Your task to perform on an android device: Empty the shopping cart on target.com. Search for "macbook" on target.com, select the first entry, and add it to the cart. Image 0: 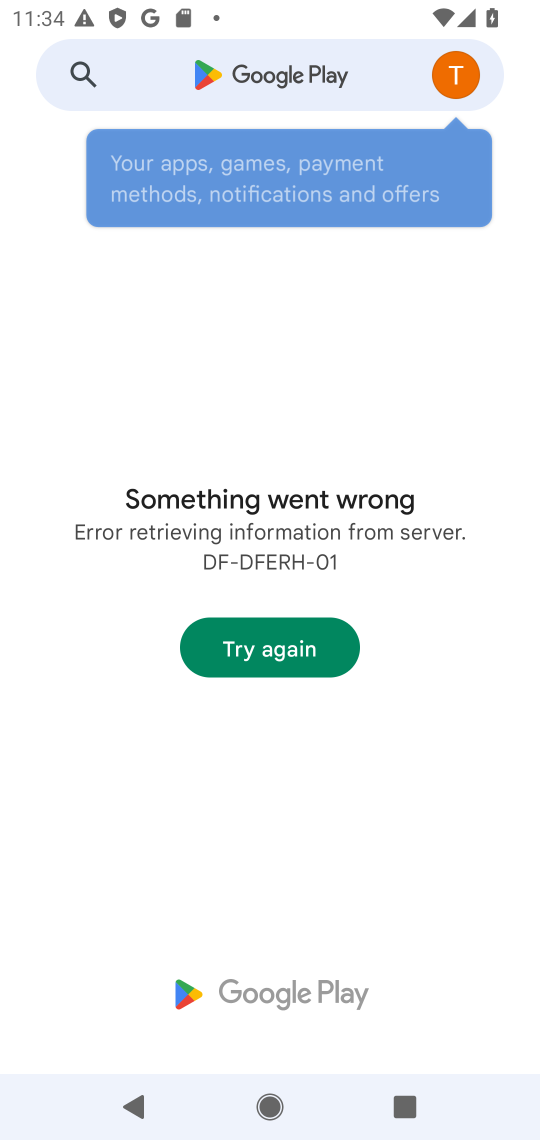
Step 0: press home button
Your task to perform on an android device: Empty the shopping cart on target.com. Search for "macbook" on target.com, select the first entry, and add it to the cart. Image 1: 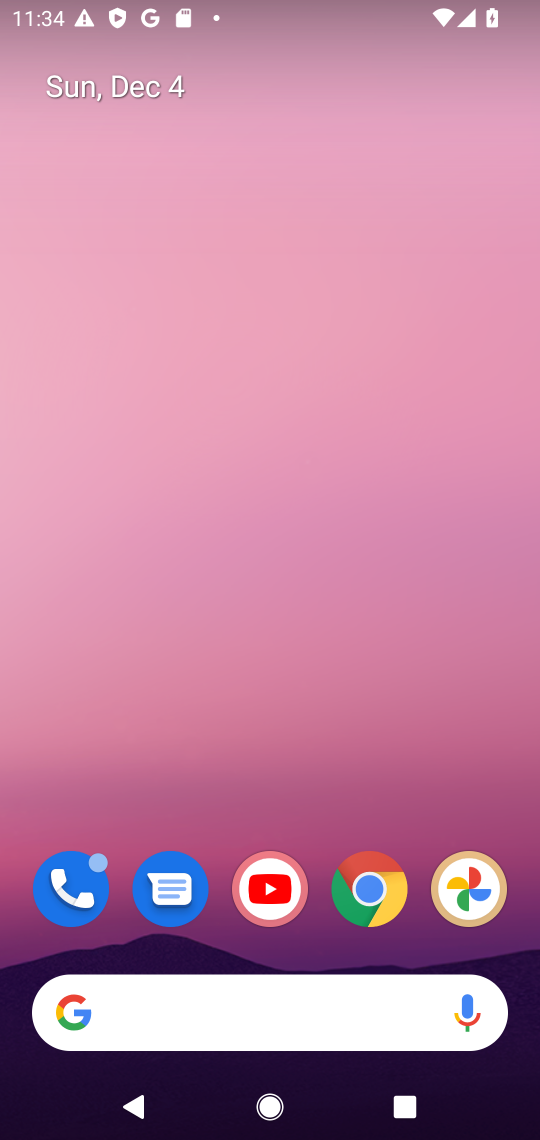
Step 1: click (388, 890)
Your task to perform on an android device: Empty the shopping cart on target.com. Search for "macbook" on target.com, select the first entry, and add it to the cart. Image 2: 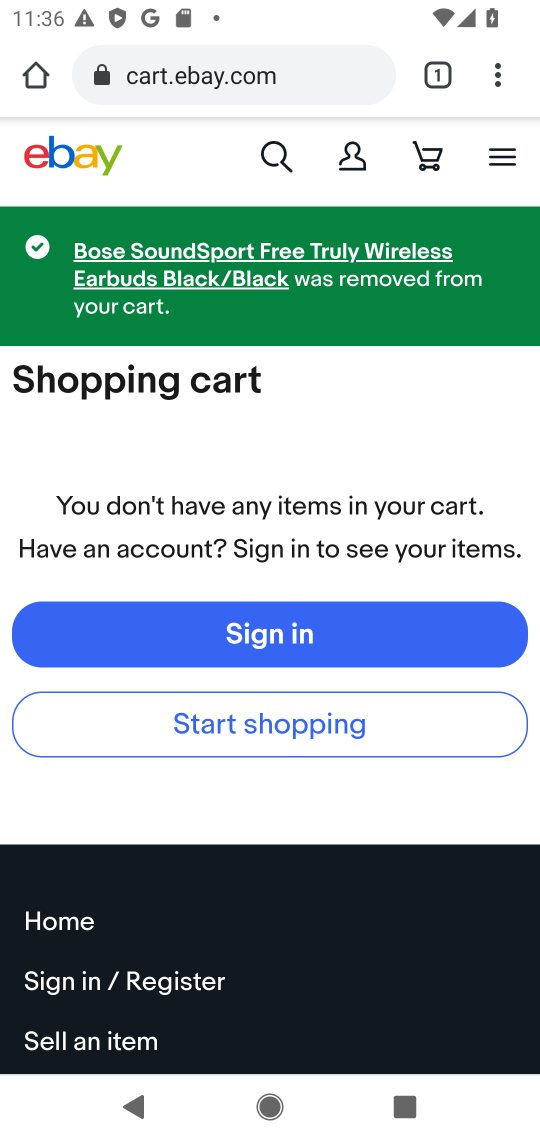
Step 2: click (296, 78)
Your task to perform on an android device: Empty the shopping cart on target.com. Search for "macbook" on target.com, select the first entry, and add it to the cart. Image 3: 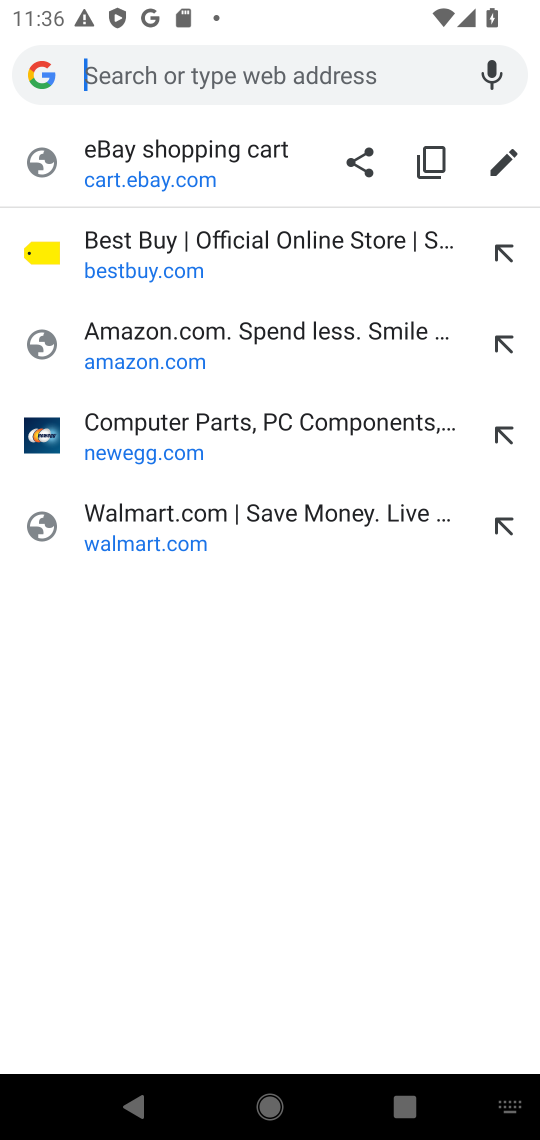
Step 3: type "target.com"
Your task to perform on an android device: Empty the shopping cart on target.com. Search for "macbook" on target.com, select the first entry, and add it to the cart. Image 4: 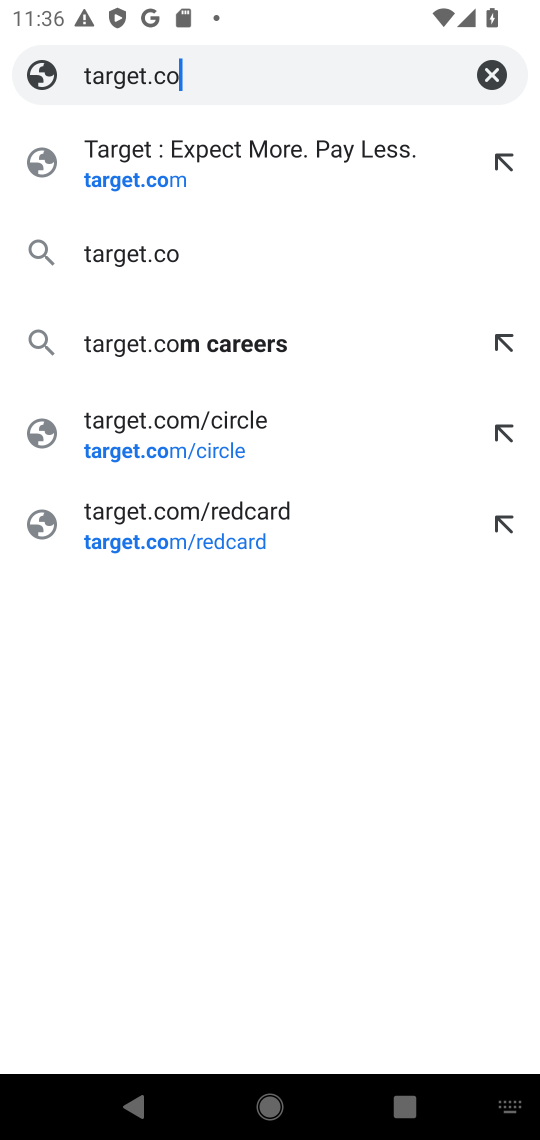
Step 4: press enter
Your task to perform on an android device: Empty the shopping cart on target.com. Search for "macbook" on target.com, select the first entry, and add it to the cart. Image 5: 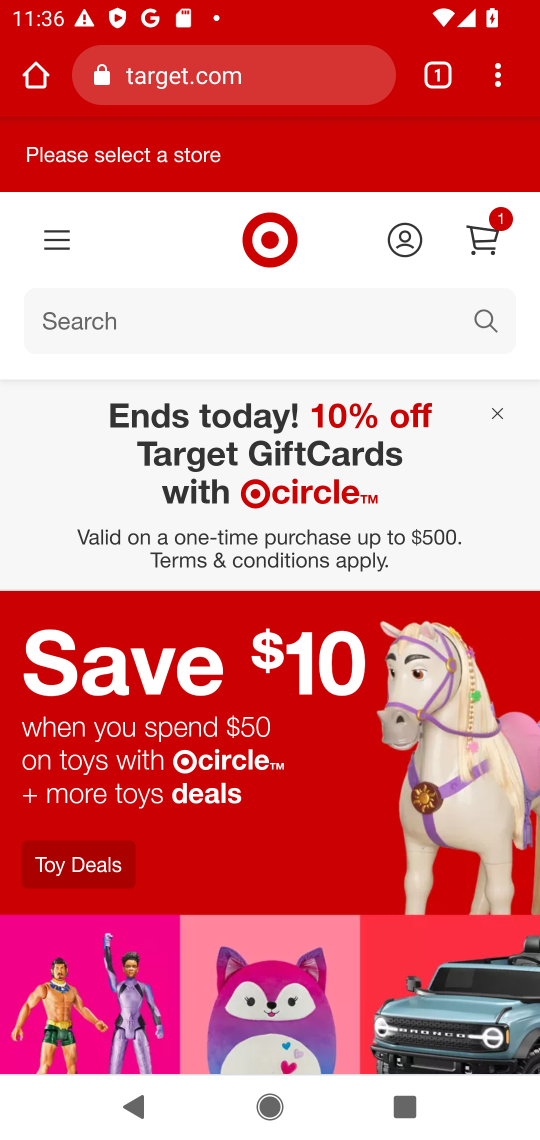
Step 5: click (492, 244)
Your task to perform on an android device: Empty the shopping cart on target.com. Search for "macbook" on target.com, select the first entry, and add it to the cart. Image 6: 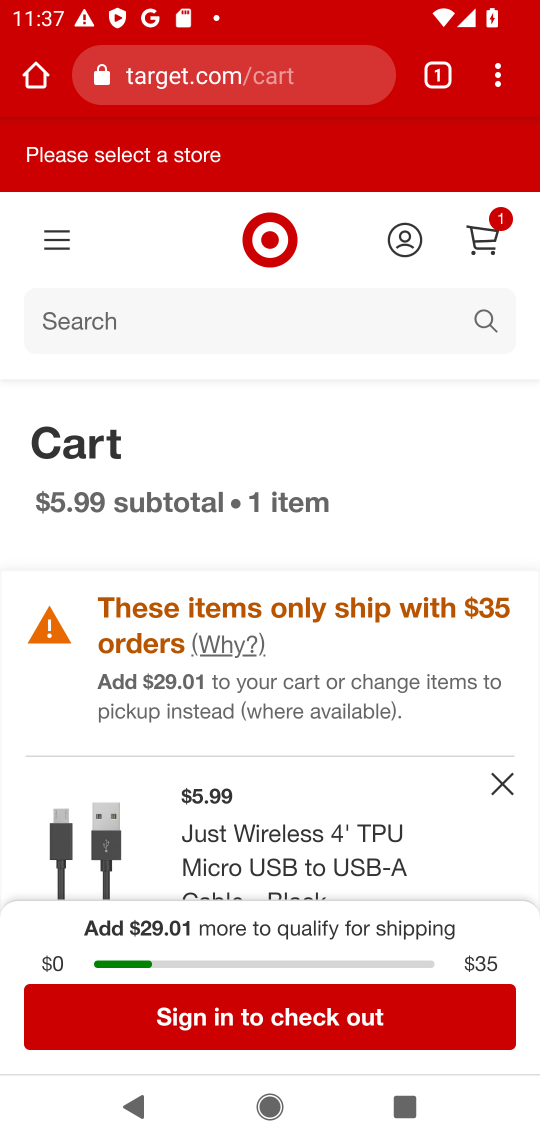
Step 6: click (502, 779)
Your task to perform on an android device: Empty the shopping cart on target.com. Search for "macbook" on target.com, select the first entry, and add it to the cart. Image 7: 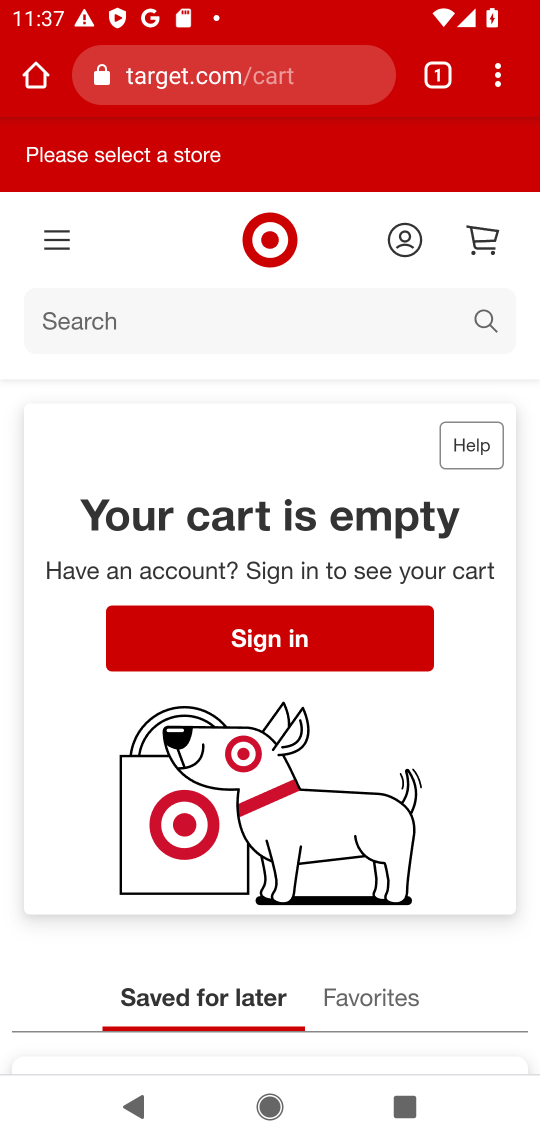
Step 7: click (490, 321)
Your task to perform on an android device: Empty the shopping cart on target.com. Search for "macbook" on target.com, select the first entry, and add it to the cart. Image 8: 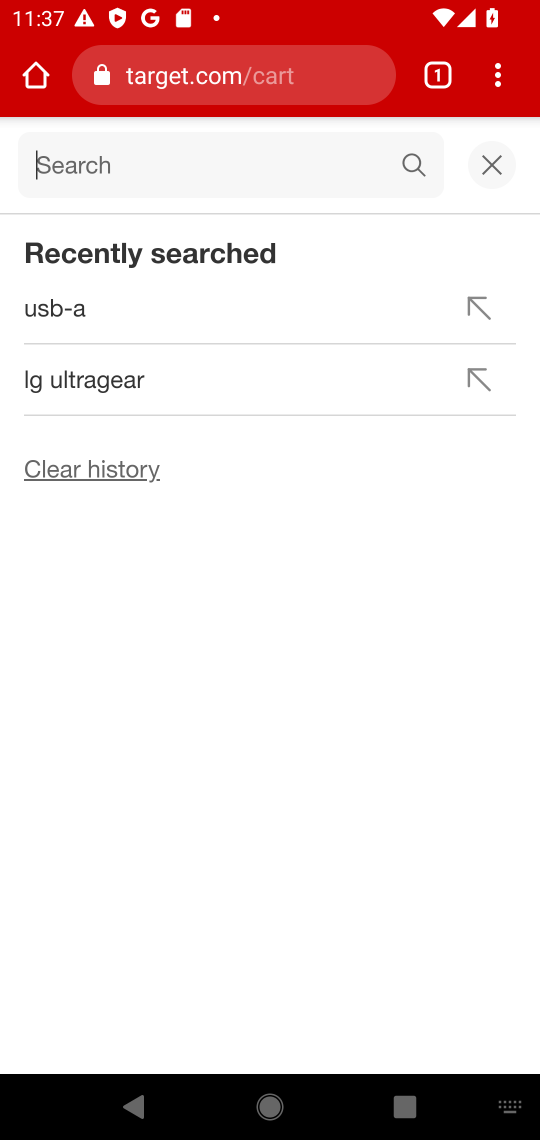
Step 8: type "macbook"
Your task to perform on an android device: Empty the shopping cart on target.com. Search for "macbook" on target.com, select the first entry, and add it to the cart. Image 9: 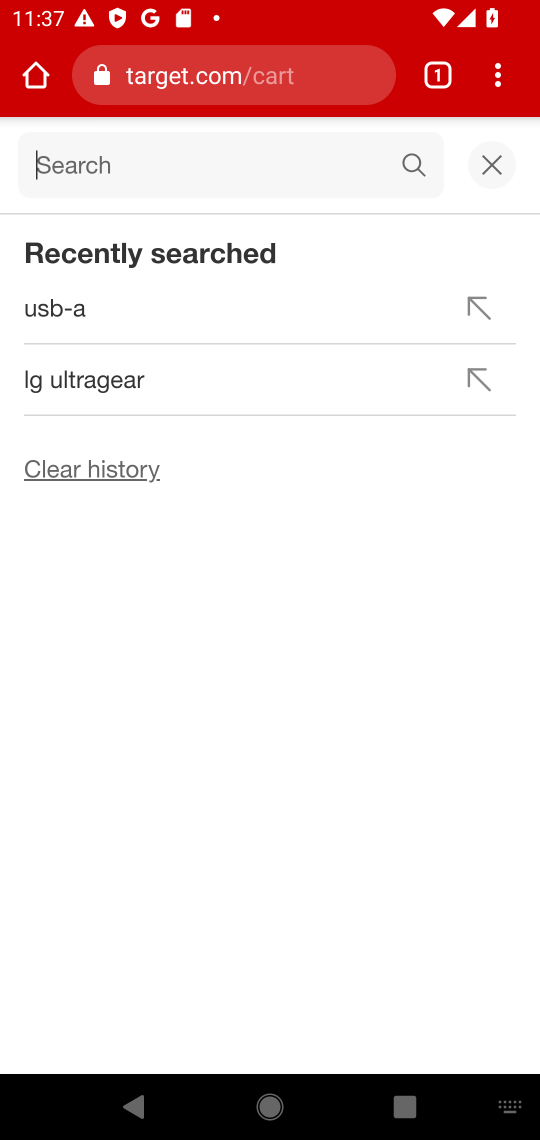
Step 9: press enter
Your task to perform on an android device: Empty the shopping cart on target.com. Search for "macbook" on target.com, select the first entry, and add it to the cart. Image 10: 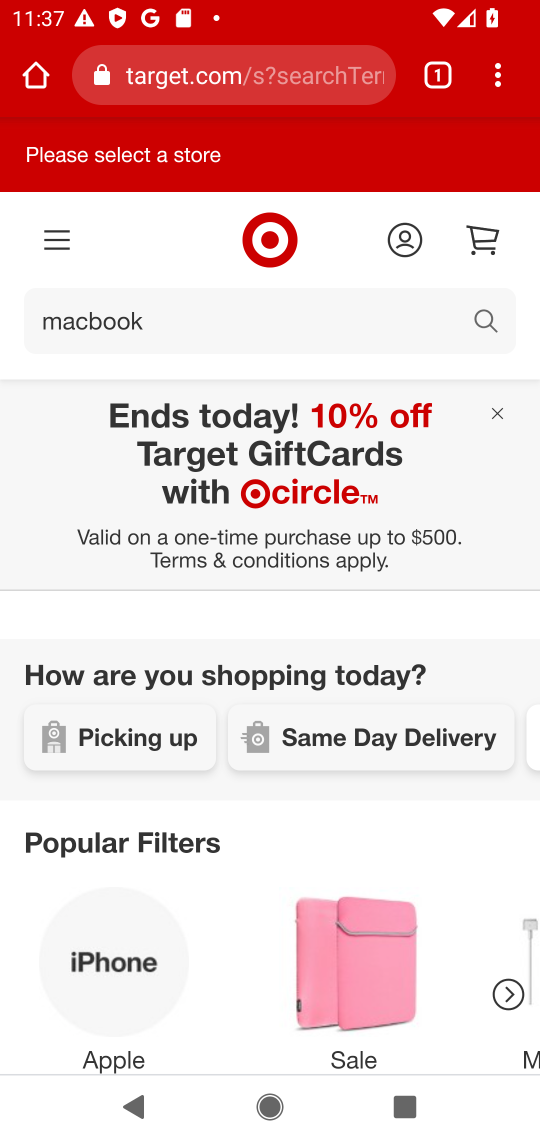
Step 10: task complete